Your task to perform on an android device: When is my next appointment? Image 0: 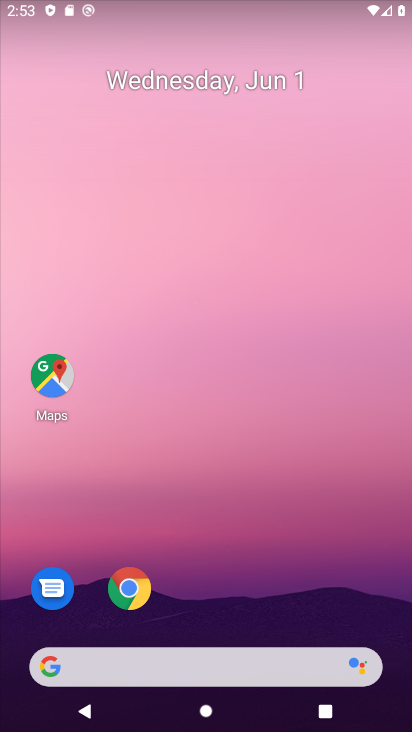
Step 0: drag from (294, 597) to (282, 157)
Your task to perform on an android device: When is my next appointment? Image 1: 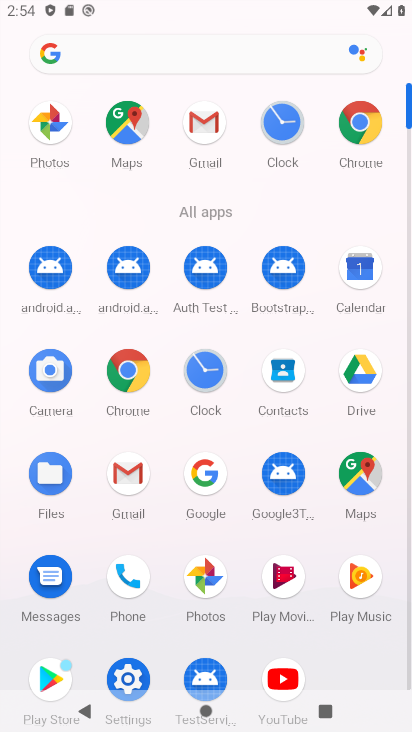
Step 1: click (353, 272)
Your task to perform on an android device: When is my next appointment? Image 2: 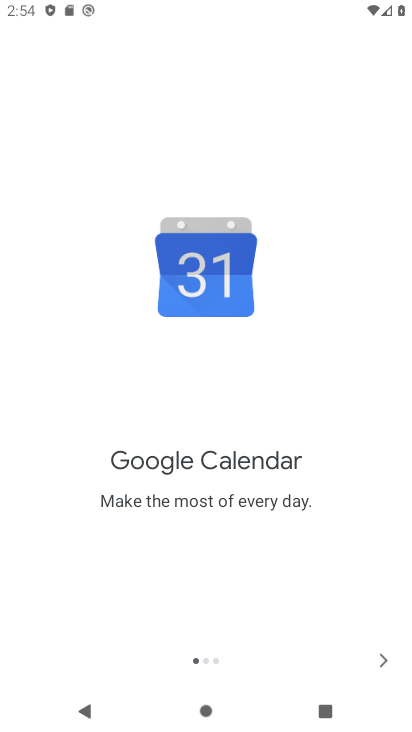
Step 2: click (383, 660)
Your task to perform on an android device: When is my next appointment? Image 3: 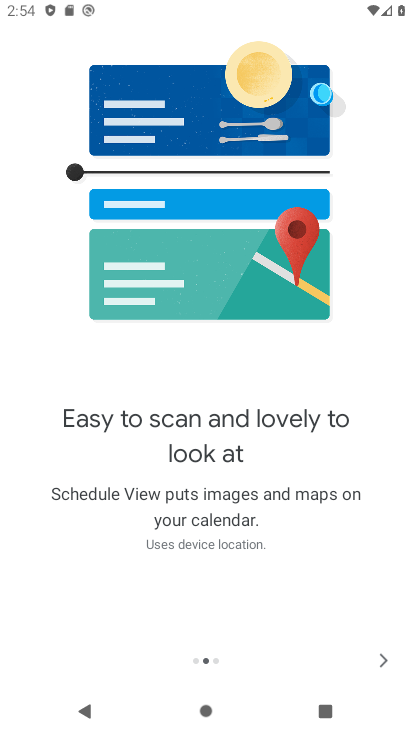
Step 3: click (383, 660)
Your task to perform on an android device: When is my next appointment? Image 4: 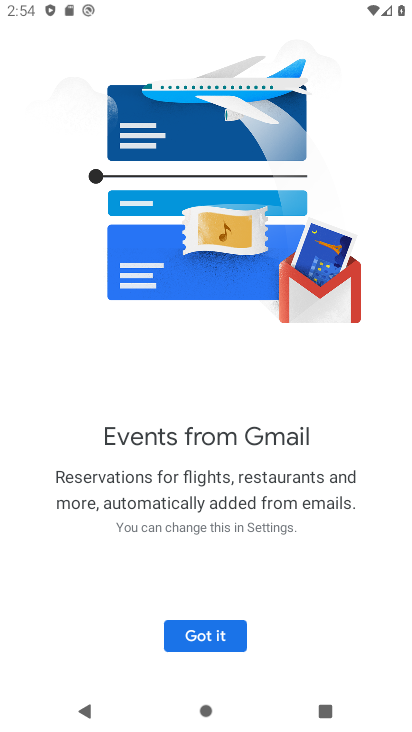
Step 4: click (383, 660)
Your task to perform on an android device: When is my next appointment? Image 5: 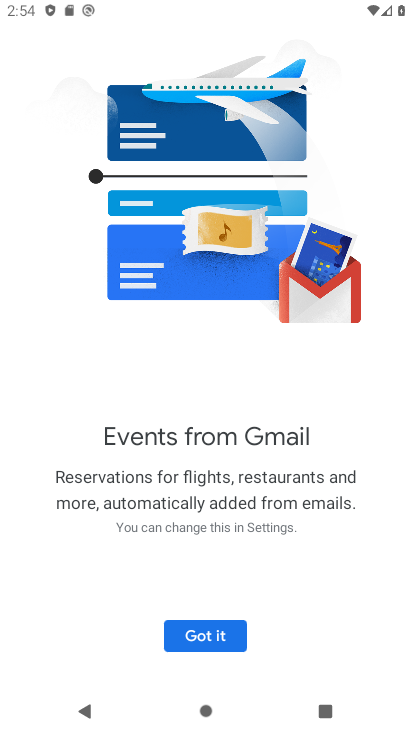
Step 5: click (217, 642)
Your task to perform on an android device: When is my next appointment? Image 6: 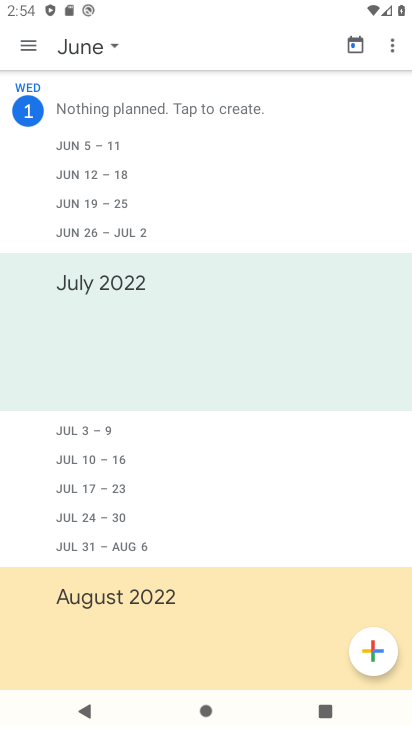
Step 6: drag from (271, 495) to (243, 328)
Your task to perform on an android device: When is my next appointment? Image 7: 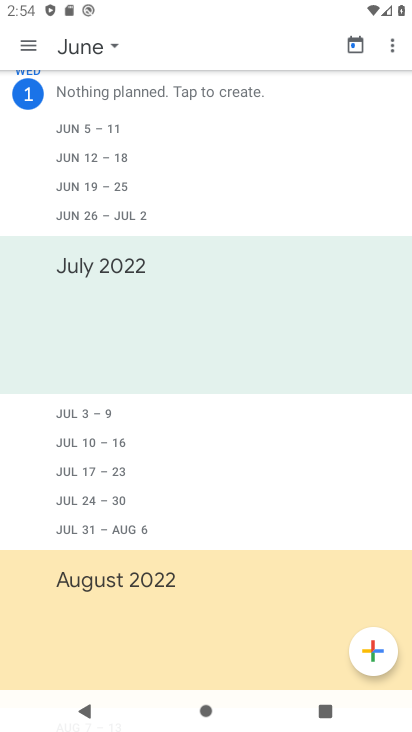
Step 7: click (79, 46)
Your task to perform on an android device: When is my next appointment? Image 8: 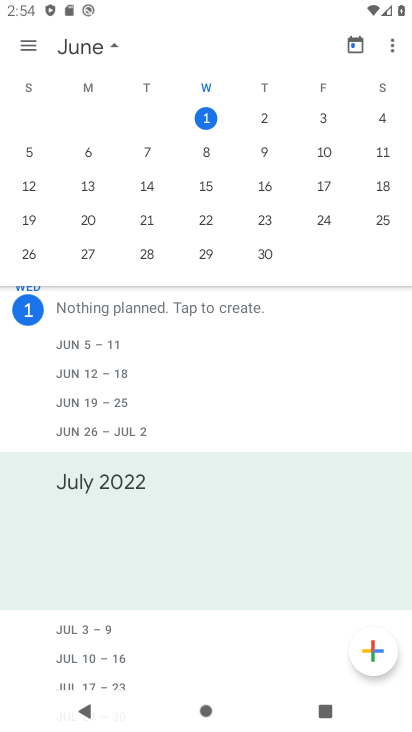
Step 8: click (31, 47)
Your task to perform on an android device: When is my next appointment? Image 9: 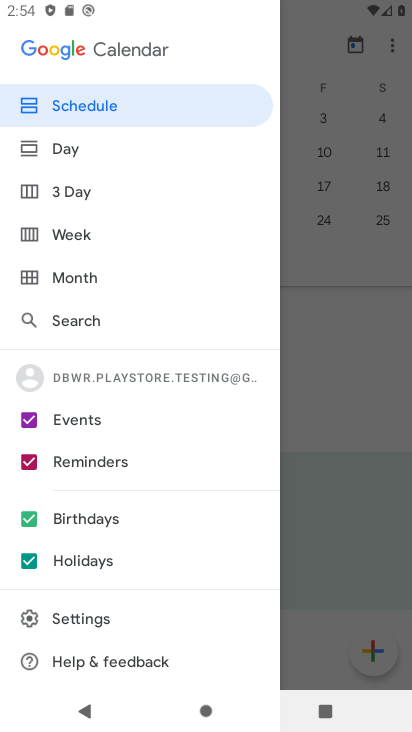
Step 9: click (63, 98)
Your task to perform on an android device: When is my next appointment? Image 10: 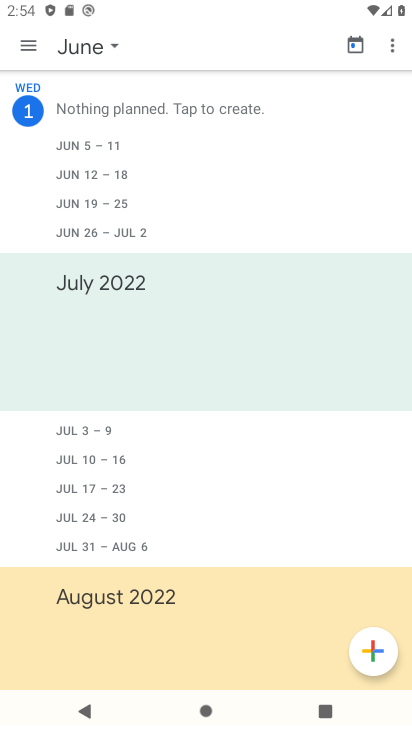
Step 10: click (31, 45)
Your task to perform on an android device: When is my next appointment? Image 11: 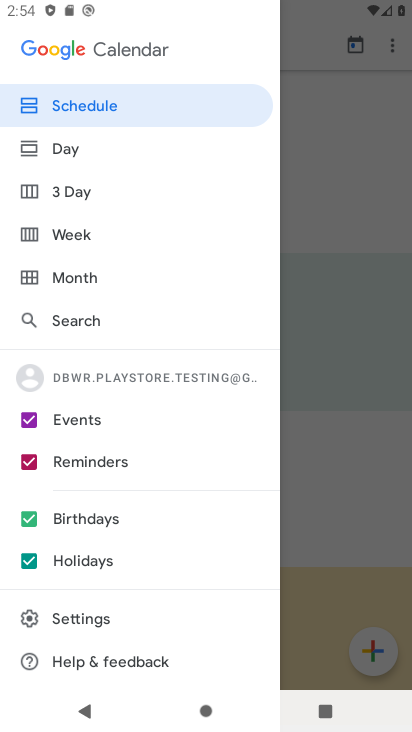
Step 11: click (69, 147)
Your task to perform on an android device: When is my next appointment? Image 12: 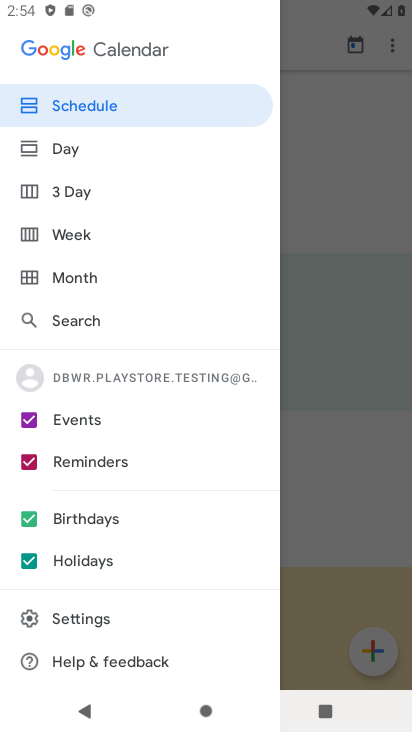
Step 12: click (64, 150)
Your task to perform on an android device: When is my next appointment? Image 13: 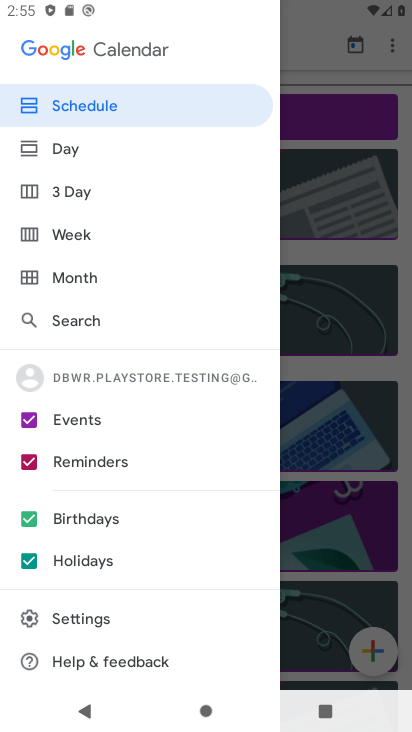
Step 13: click (79, 159)
Your task to perform on an android device: When is my next appointment? Image 14: 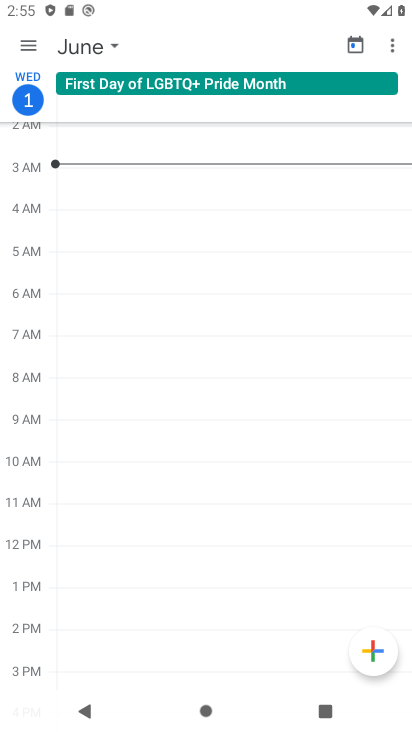
Step 14: click (27, 53)
Your task to perform on an android device: When is my next appointment? Image 15: 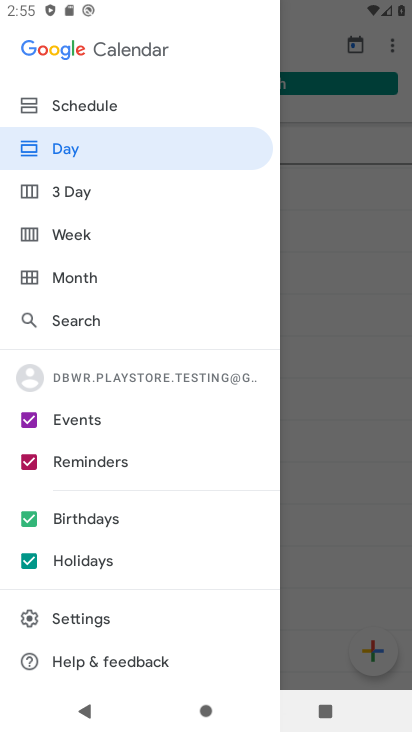
Step 15: click (94, 103)
Your task to perform on an android device: When is my next appointment? Image 16: 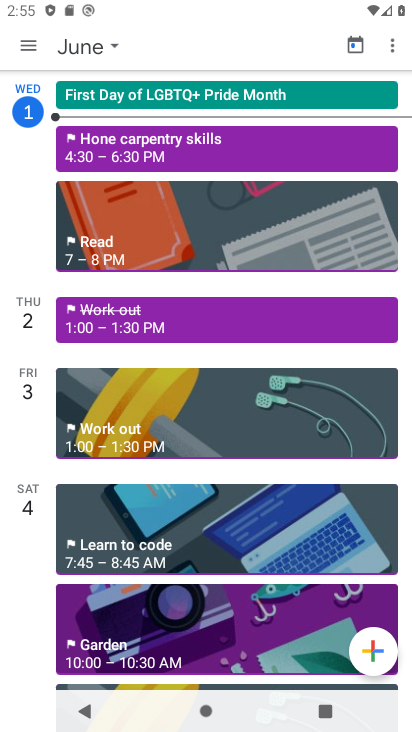
Step 16: drag from (212, 472) to (177, 15)
Your task to perform on an android device: When is my next appointment? Image 17: 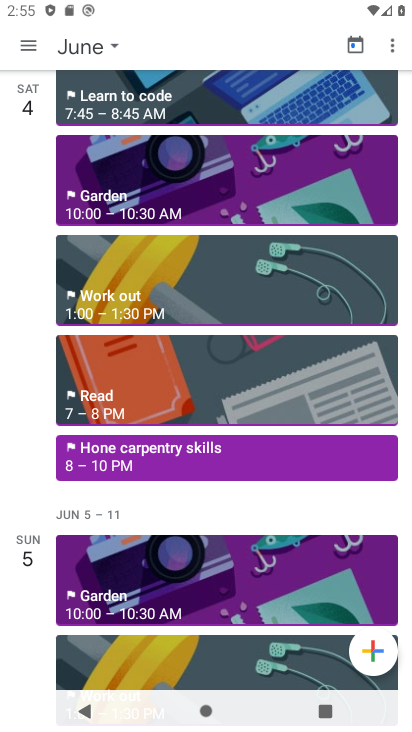
Step 17: drag from (215, 662) to (172, 252)
Your task to perform on an android device: When is my next appointment? Image 18: 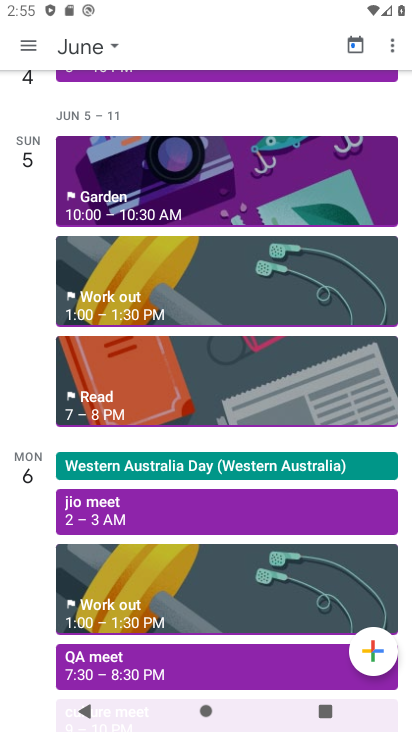
Step 18: click (136, 483)
Your task to perform on an android device: When is my next appointment? Image 19: 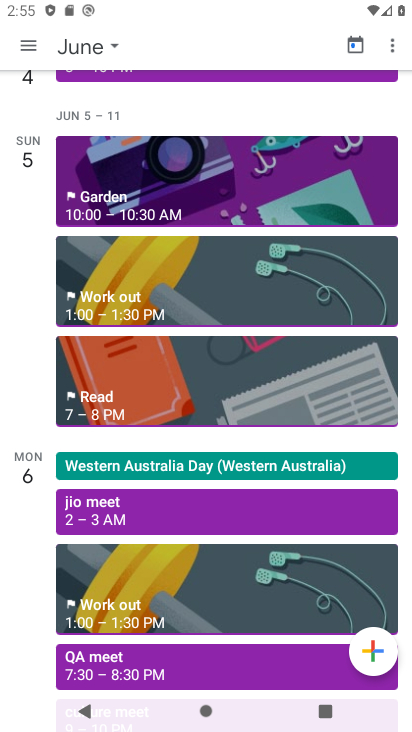
Step 19: click (289, 531)
Your task to perform on an android device: When is my next appointment? Image 20: 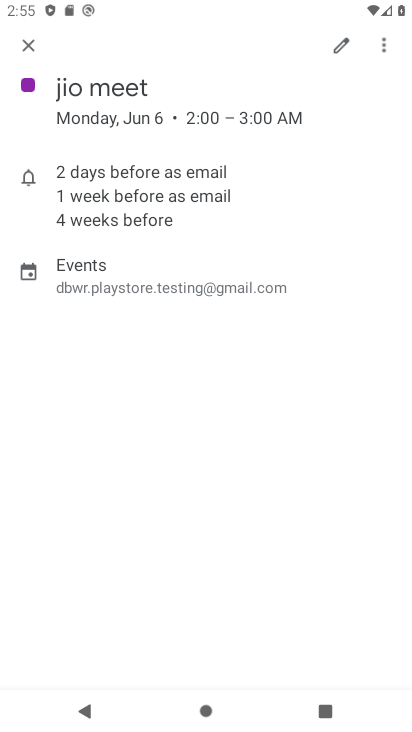
Step 20: task complete